Your task to perform on an android device: Open Google Maps Image 0: 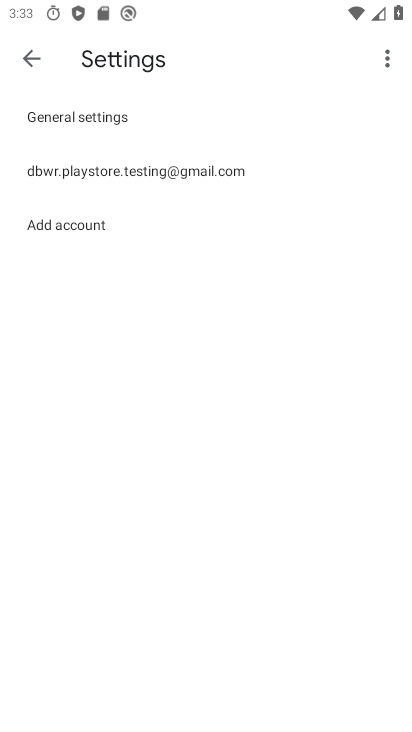
Step 0: press back button
Your task to perform on an android device: Open Google Maps Image 1: 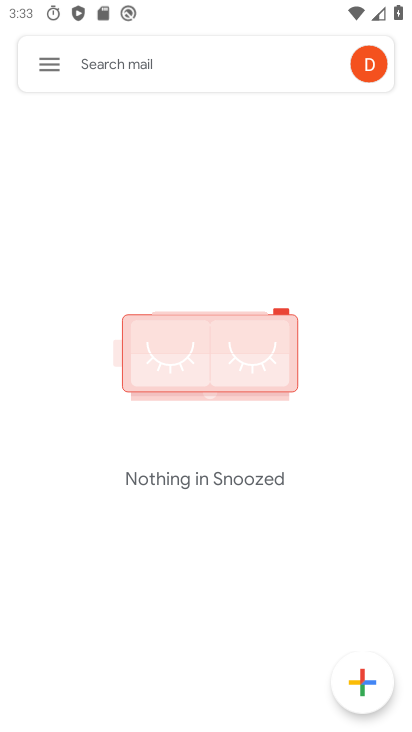
Step 1: press home button
Your task to perform on an android device: Open Google Maps Image 2: 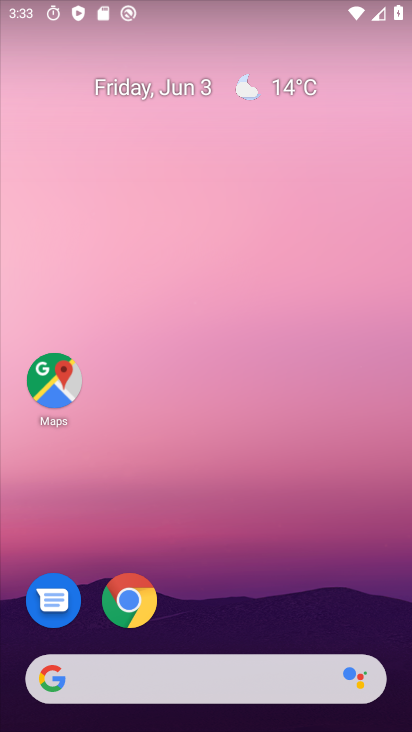
Step 2: click (49, 374)
Your task to perform on an android device: Open Google Maps Image 3: 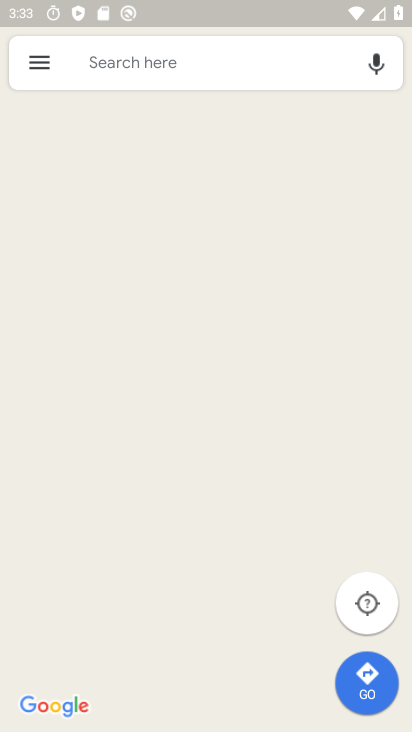
Step 3: click (275, 64)
Your task to perform on an android device: Open Google Maps Image 4: 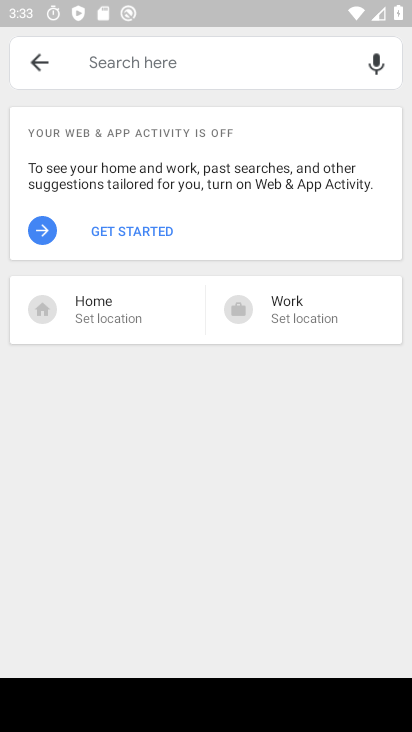
Step 4: click (37, 60)
Your task to perform on an android device: Open Google Maps Image 5: 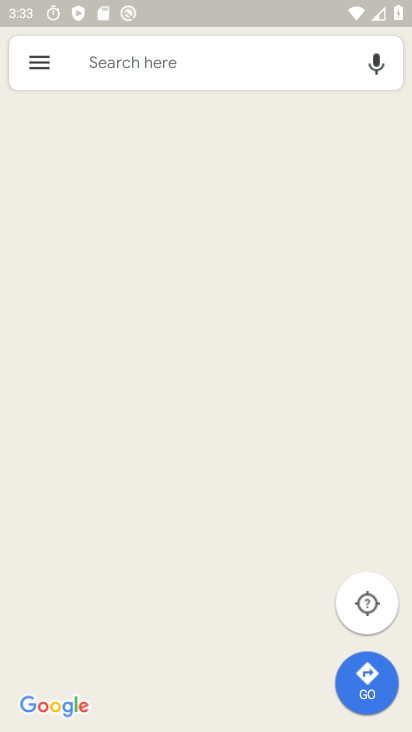
Step 5: task complete